Your task to perform on an android device: check google app version Image 0: 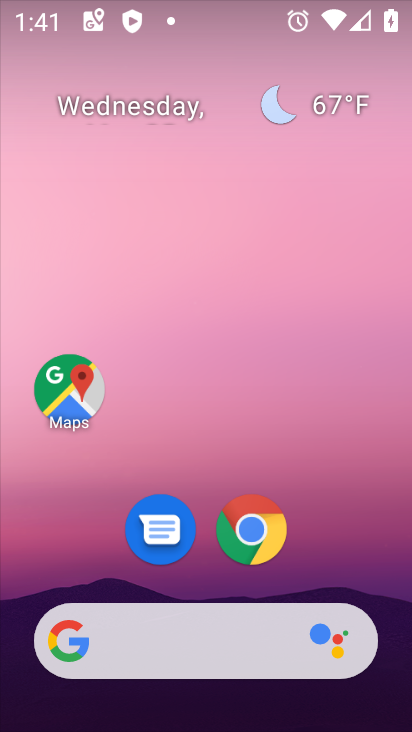
Step 0: drag from (346, 540) to (203, 208)
Your task to perform on an android device: check google app version Image 1: 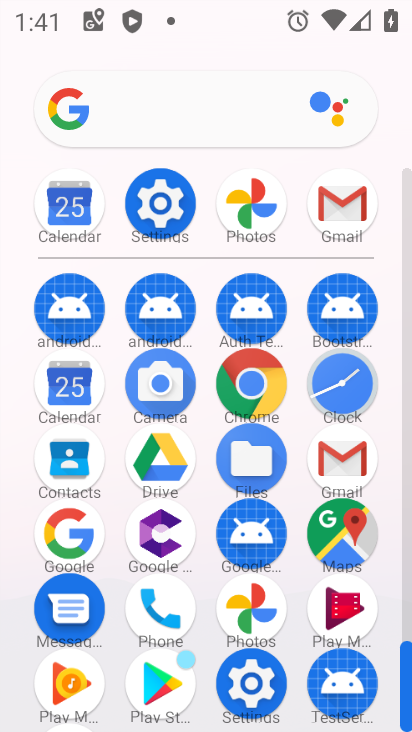
Step 1: click (66, 533)
Your task to perform on an android device: check google app version Image 2: 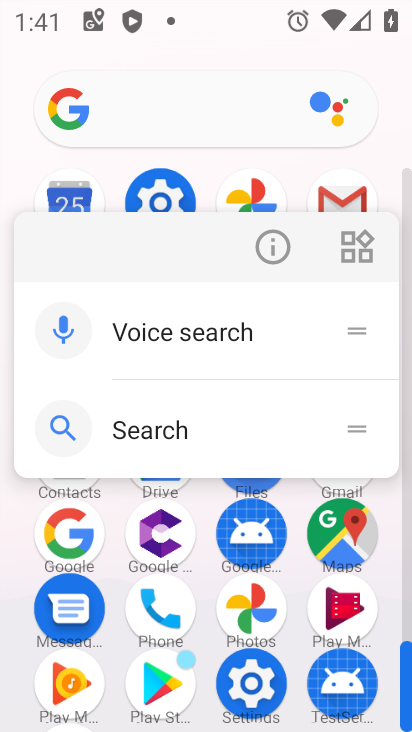
Step 2: click (274, 247)
Your task to perform on an android device: check google app version Image 3: 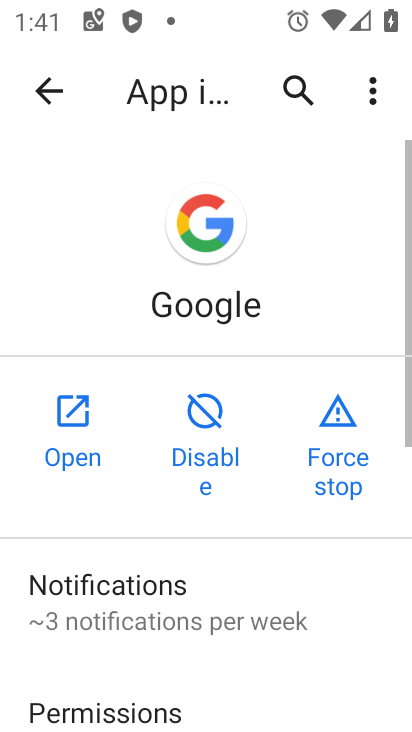
Step 3: drag from (228, 564) to (257, 420)
Your task to perform on an android device: check google app version Image 4: 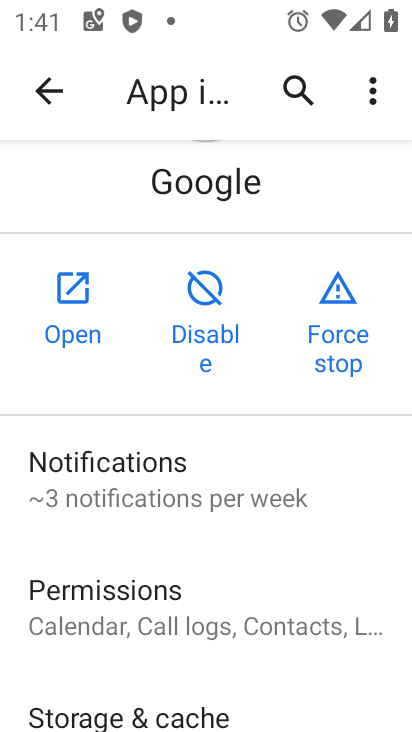
Step 4: drag from (174, 546) to (245, 431)
Your task to perform on an android device: check google app version Image 5: 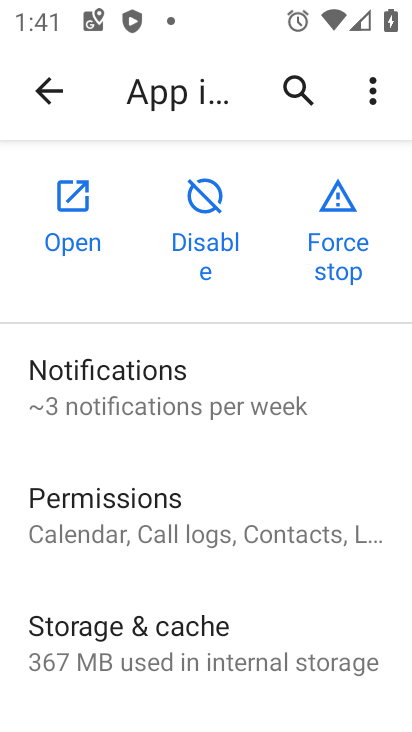
Step 5: drag from (128, 574) to (162, 454)
Your task to perform on an android device: check google app version Image 6: 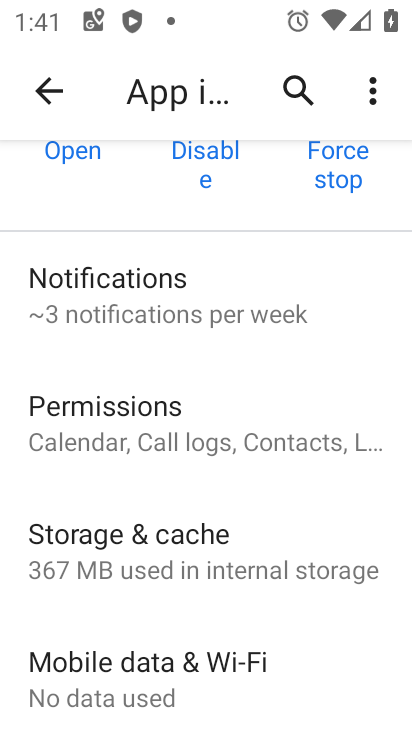
Step 6: drag from (119, 617) to (195, 483)
Your task to perform on an android device: check google app version Image 7: 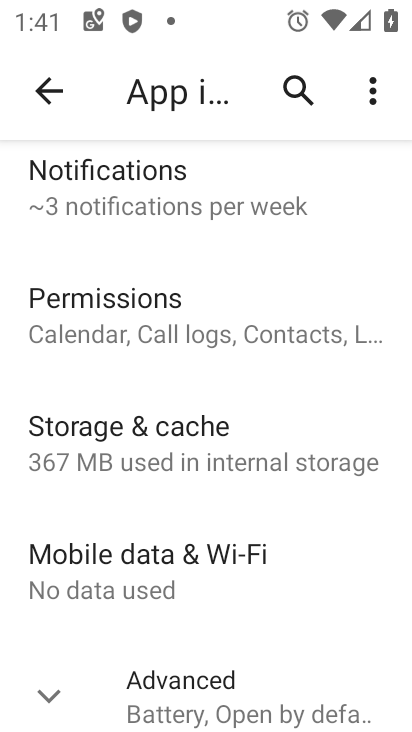
Step 7: drag from (103, 524) to (154, 430)
Your task to perform on an android device: check google app version Image 8: 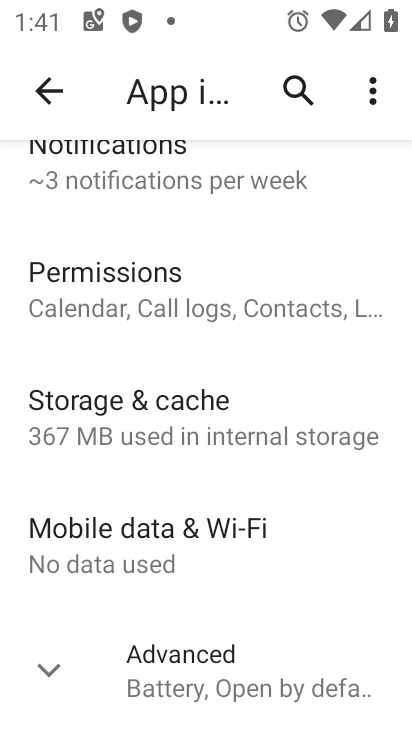
Step 8: click (181, 668)
Your task to perform on an android device: check google app version Image 9: 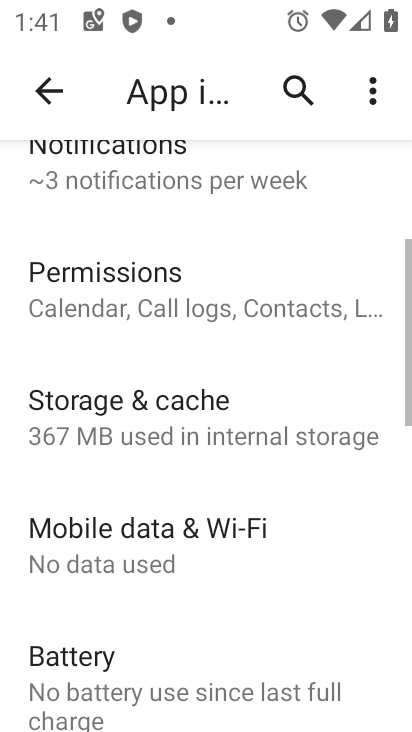
Step 9: task complete